Your task to perform on an android device: Search for pizza restaurants on Maps Image 0: 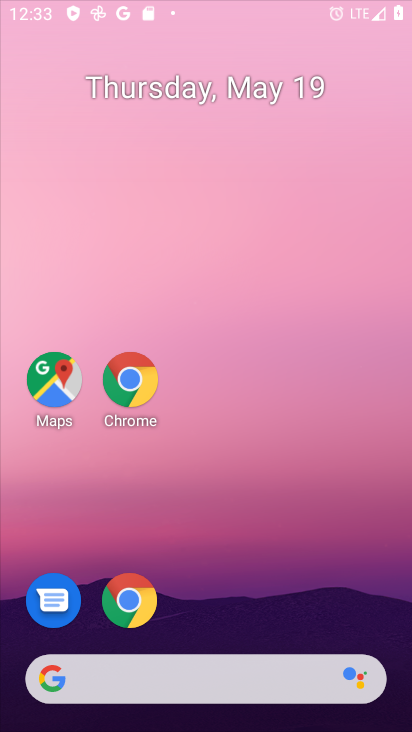
Step 0: drag from (204, 416) to (140, 68)
Your task to perform on an android device: Search for pizza restaurants on Maps Image 1: 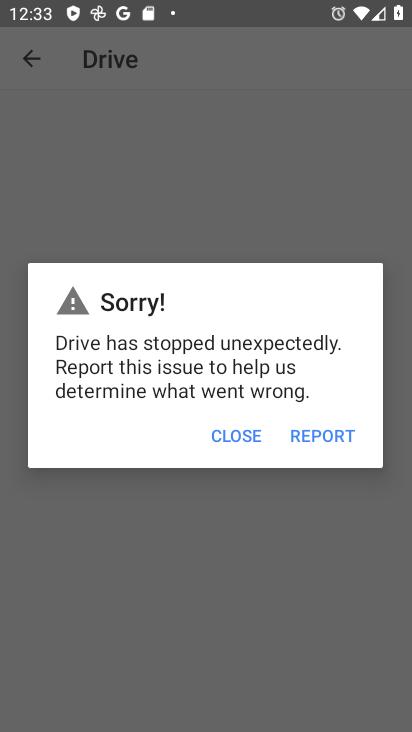
Step 1: click (228, 436)
Your task to perform on an android device: Search for pizza restaurants on Maps Image 2: 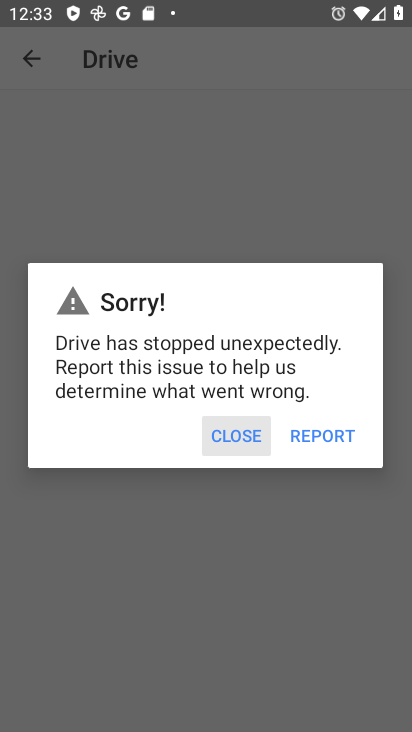
Step 2: click (230, 437)
Your task to perform on an android device: Search for pizza restaurants on Maps Image 3: 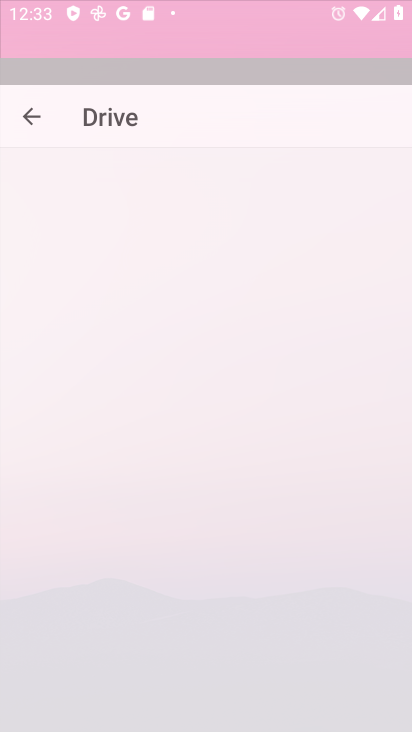
Step 3: click (233, 437)
Your task to perform on an android device: Search for pizza restaurants on Maps Image 4: 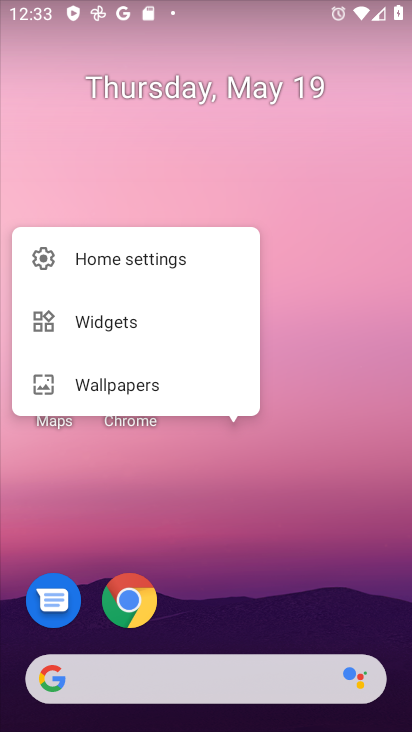
Step 4: drag from (328, 557) to (214, 67)
Your task to perform on an android device: Search for pizza restaurants on Maps Image 5: 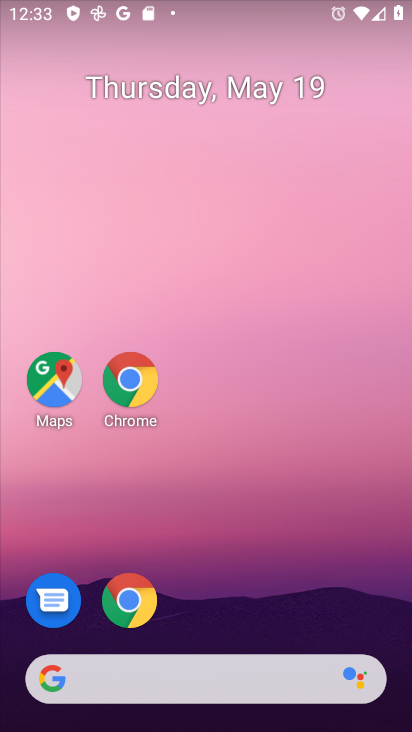
Step 5: drag from (288, 507) to (97, 62)
Your task to perform on an android device: Search for pizza restaurants on Maps Image 6: 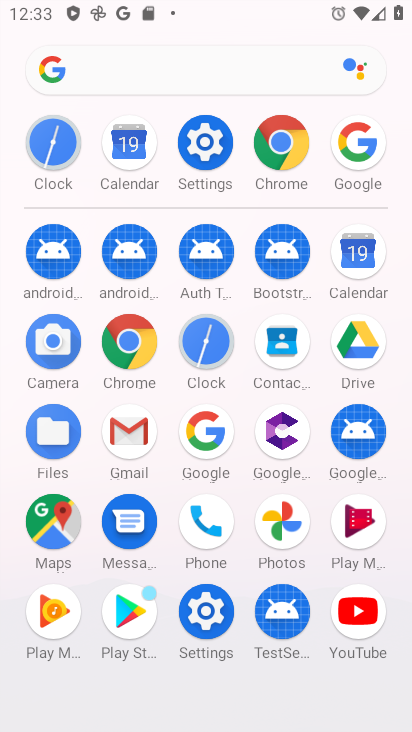
Step 6: click (50, 527)
Your task to perform on an android device: Search for pizza restaurants on Maps Image 7: 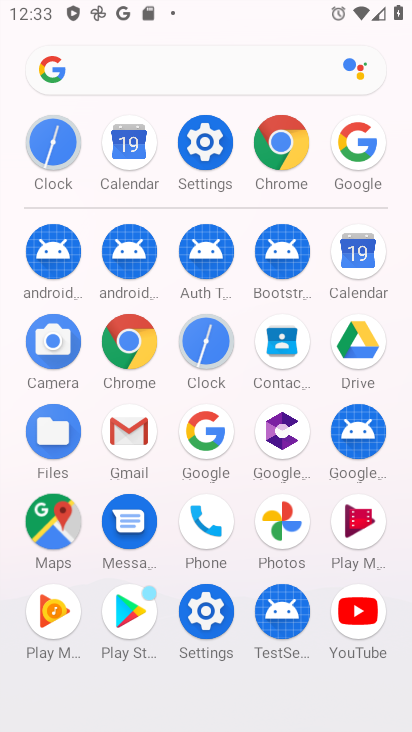
Step 7: click (50, 527)
Your task to perform on an android device: Search for pizza restaurants on Maps Image 8: 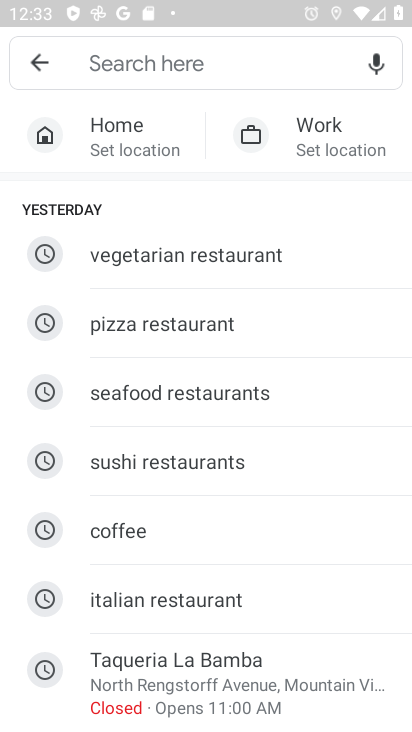
Step 8: click (144, 328)
Your task to perform on an android device: Search for pizza restaurants on Maps Image 9: 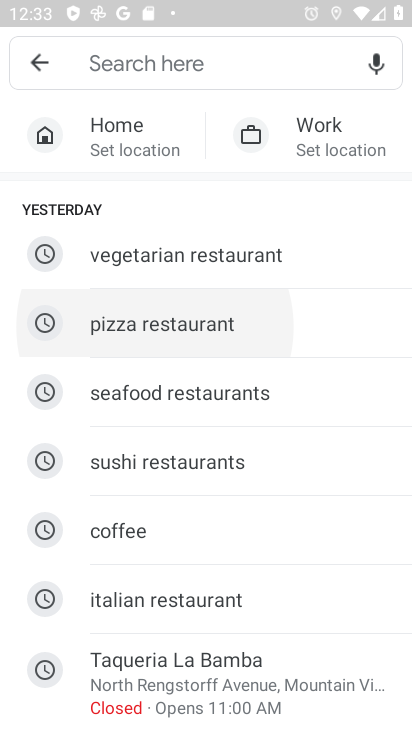
Step 9: click (147, 328)
Your task to perform on an android device: Search for pizza restaurants on Maps Image 10: 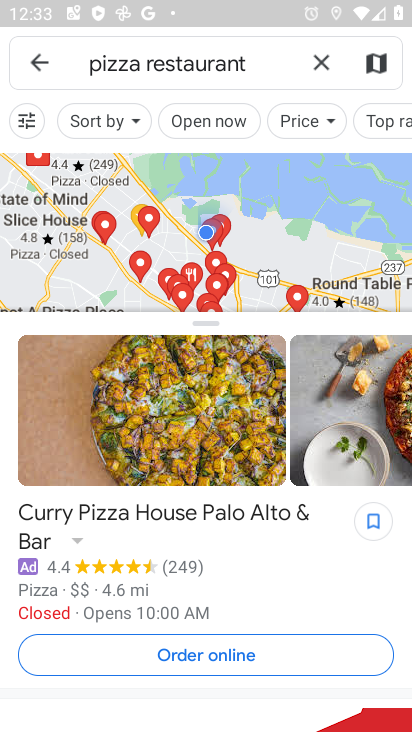
Step 10: task complete